Your task to perform on an android device: change the clock style Image 0: 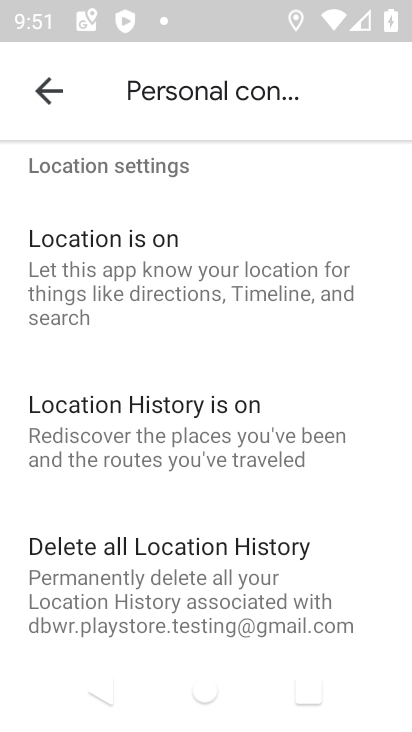
Step 0: press home button
Your task to perform on an android device: change the clock style Image 1: 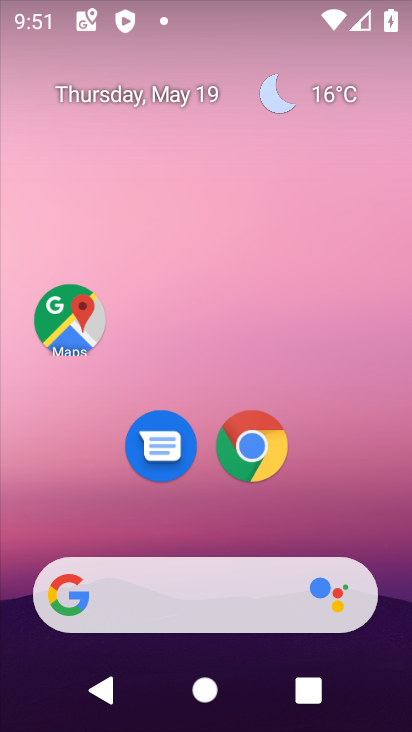
Step 1: drag from (236, 424) to (267, 42)
Your task to perform on an android device: change the clock style Image 2: 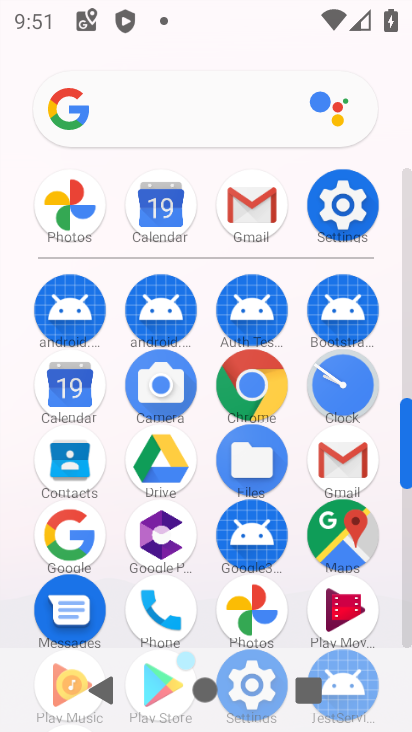
Step 2: click (352, 212)
Your task to perform on an android device: change the clock style Image 3: 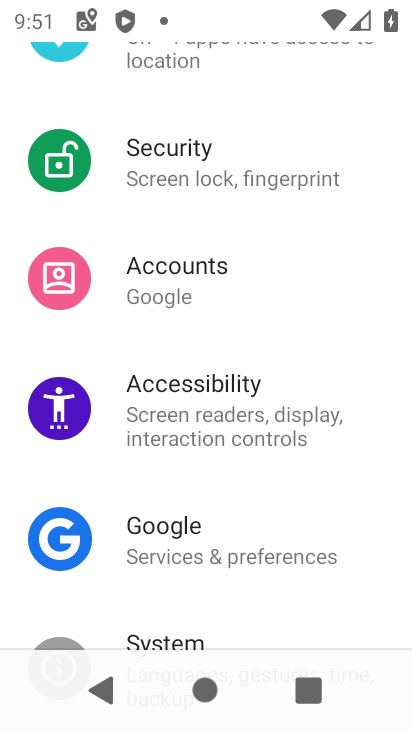
Step 3: drag from (240, 241) to (209, 497)
Your task to perform on an android device: change the clock style Image 4: 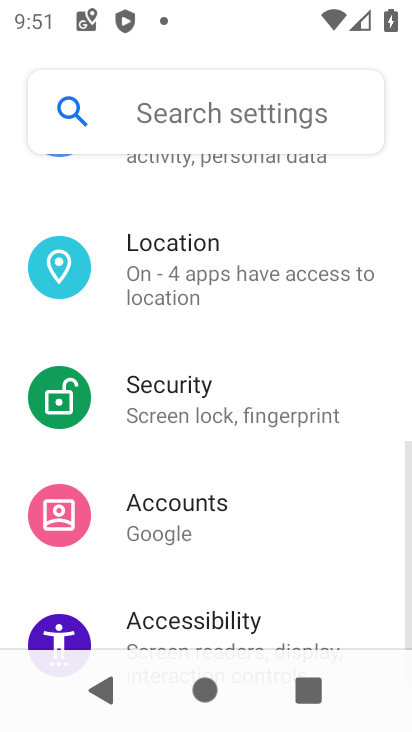
Step 4: drag from (233, 229) to (181, 636)
Your task to perform on an android device: change the clock style Image 5: 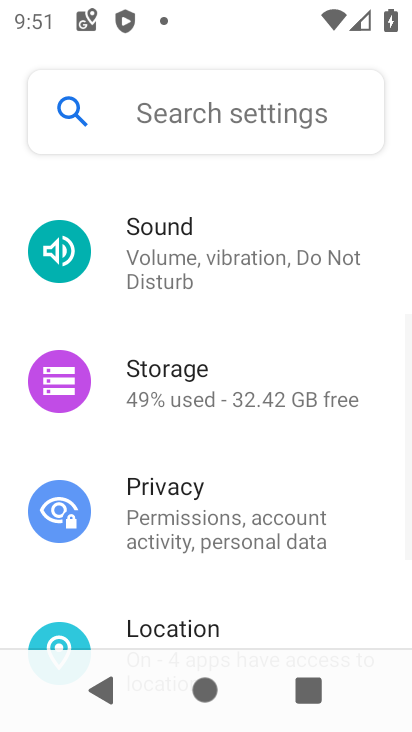
Step 5: drag from (217, 264) to (192, 526)
Your task to perform on an android device: change the clock style Image 6: 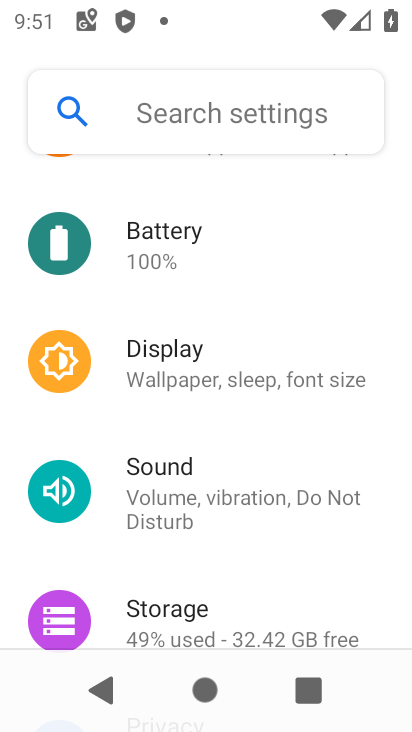
Step 6: click (207, 362)
Your task to perform on an android device: change the clock style Image 7: 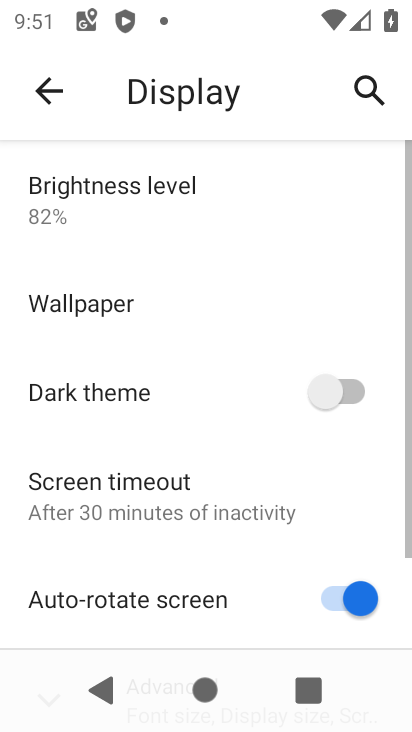
Step 7: drag from (170, 513) to (213, 198)
Your task to perform on an android device: change the clock style Image 8: 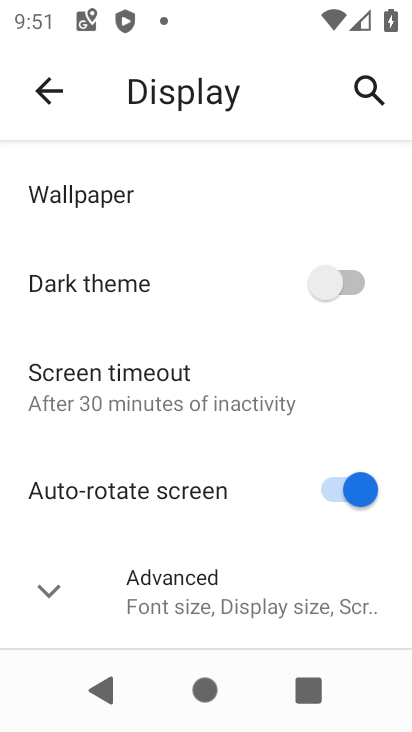
Step 8: click (181, 606)
Your task to perform on an android device: change the clock style Image 9: 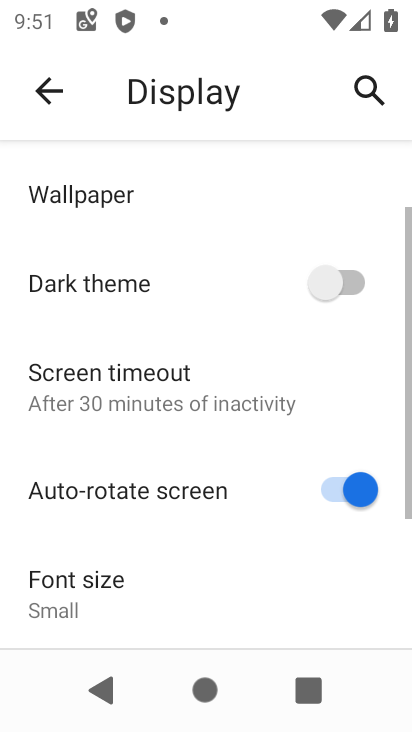
Step 9: drag from (181, 606) to (254, 136)
Your task to perform on an android device: change the clock style Image 10: 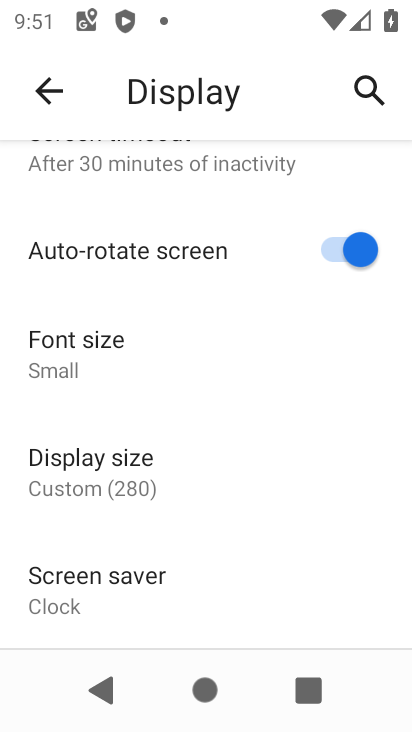
Step 10: click (212, 584)
Your task to perform on an android device: change the clock style Image 11: 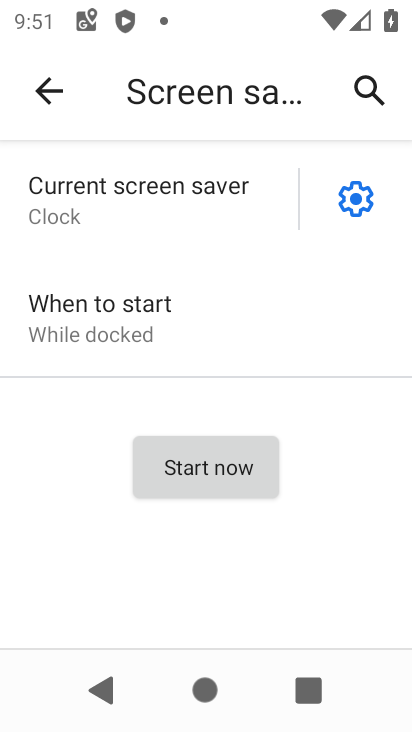
Step 11: click (365, 195)
Your task to perform on an android device: change the clock style Image 12: 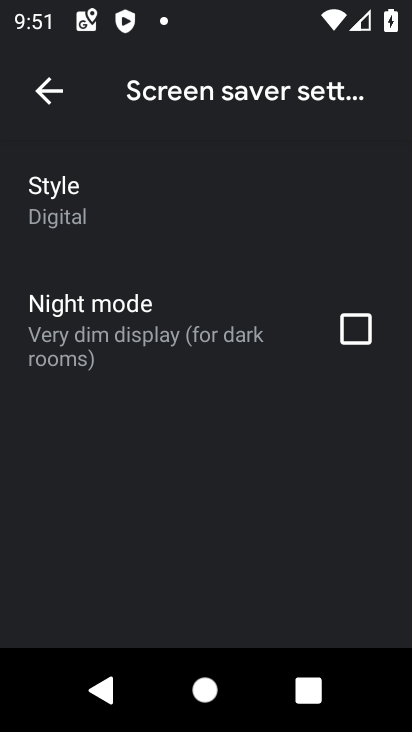
Step 12: click (76, 216)
Your task to perform on an android device: change the clock style Image 13: 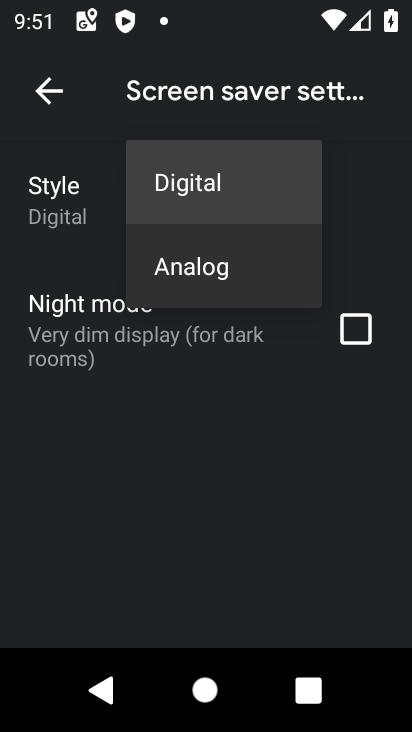
Step 13: click (210, 271)
Your task to perform on an android device: change the clock style Image 14: 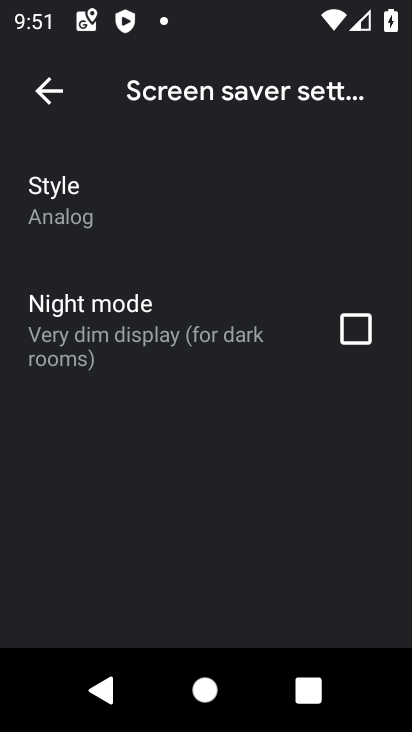
Step 14: task complete